Your task to perform on an android device: What's the weather going to be this weekend? Image 0: 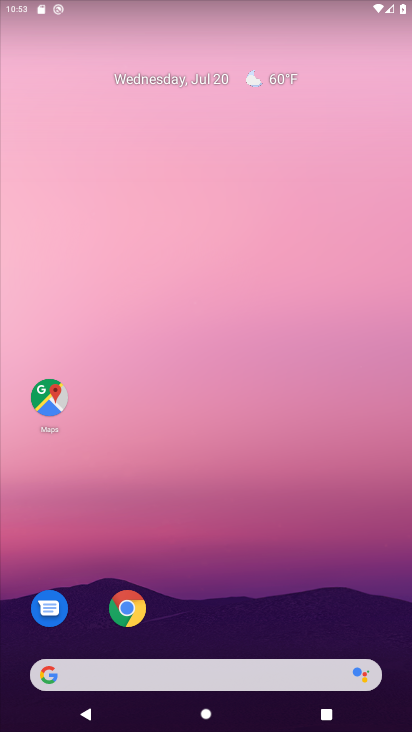
Step 0: click (193, 676)
Your task to perform on an android device: What's the weather going to be this weekend? Image 1: 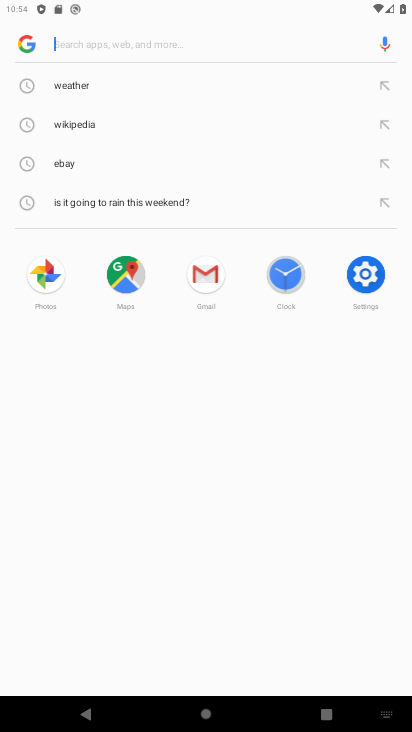
Step 1: type "what's the weather going to be this weekend"
Your task to perform on an android device: What's the weather going to be this weekend? Image 2: 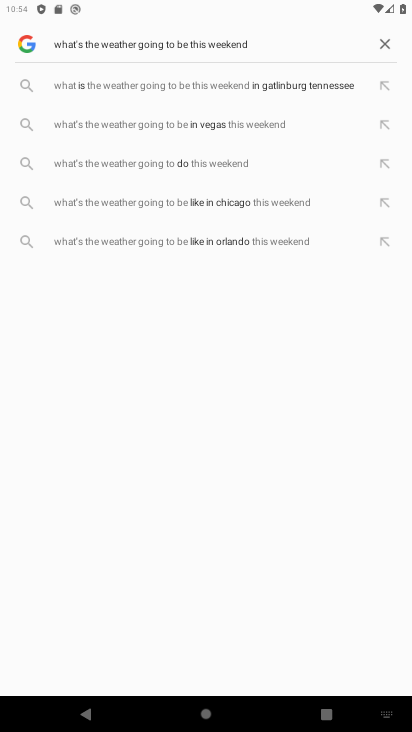
Step 2: type "?"
Your task to perform on an android device: What's the weather going to be this weekend? Image 3: 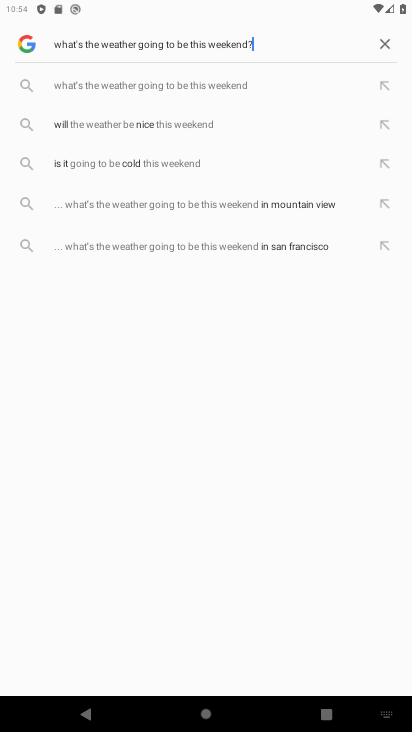
Step 3: click (72, 80)
Your task to perform on an android device: What's the weather going to be this weekend? Image 4: 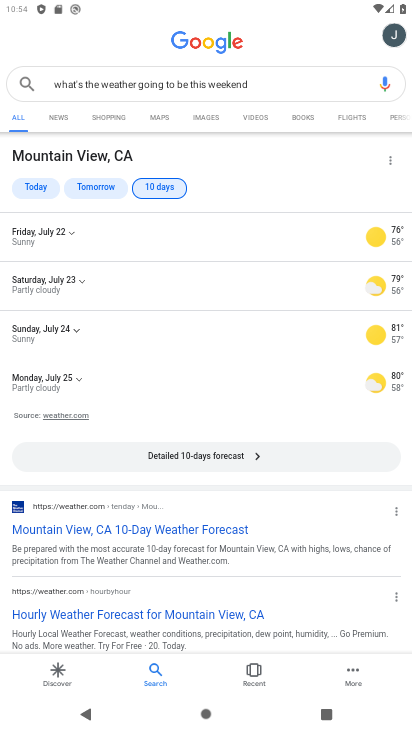
Step 4: task complete